Your task to perform on an android device: Open calendar and show me the third week of next month Image 0: 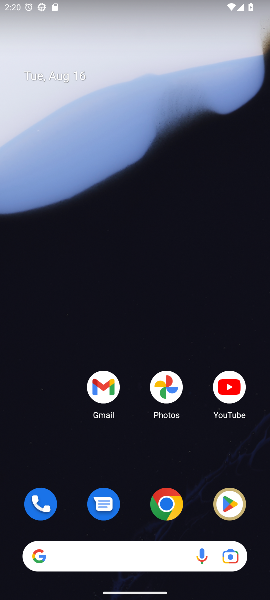
Step 0: drag from (132, 488) to (99, 55)
Your task to perform on an android device: Open calendar and show me the third week of next month Image 1: 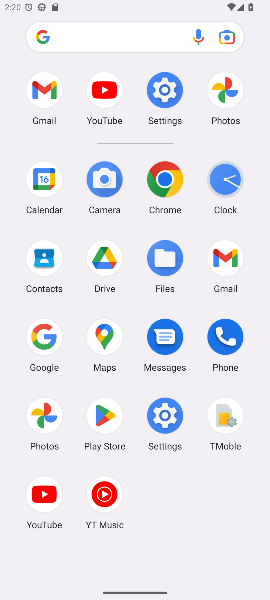
Step 1: click (48, 171)
Your task to perform on an android device: Open calendar and show me the third week of next month Image 2: 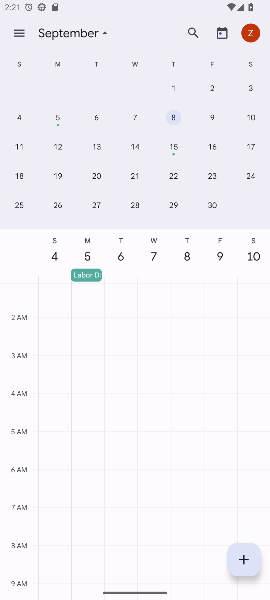
Step 2: click (95, 145)
Your task to perform on an android device: Open calendar and show me the third week of next month Image 3: 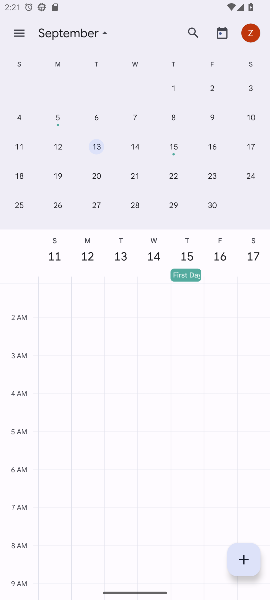
Step 3: task complete